Your task to perform on an android device: empty trash in google photos Image 0: 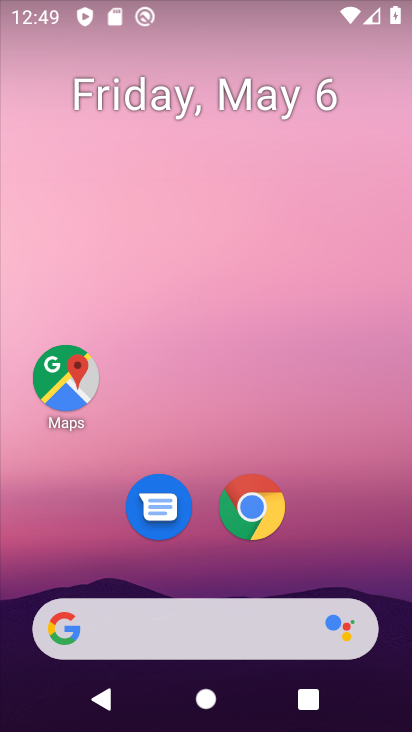
Step 0: drag from (117, 600) to (249, 173)
Your task to perform on an android device: empty trash in google photos Image 1: 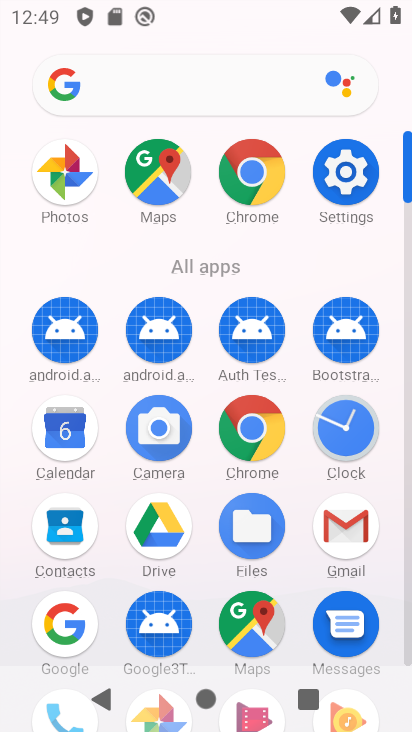
Step 1: drag from (156, 629) to (231, 412)
Your task to perform on an android device: empty trash in google photos Image 2: 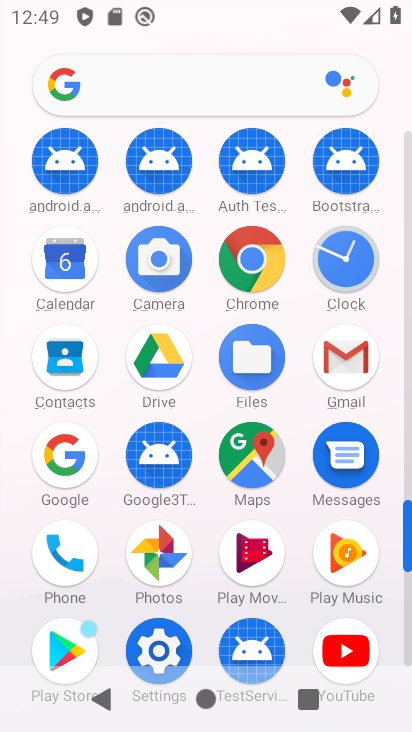
Step 2: click (161, 566)
Your task to perform on an android device: empty trash in google photos Image 3: 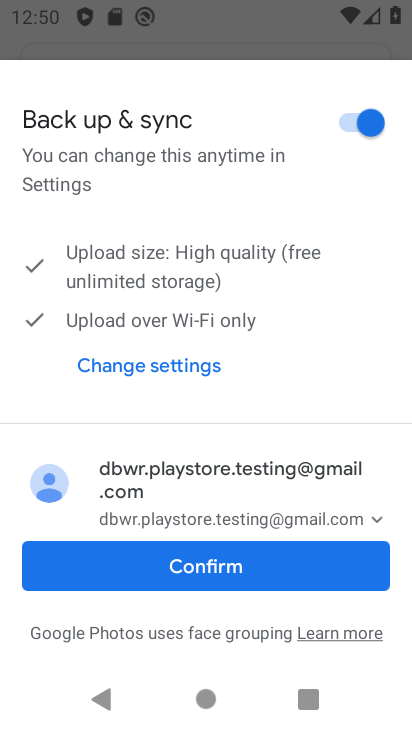
Step 3: click (190, 563)
Your task to perform on an android device: empty trash in google photos Image 4: 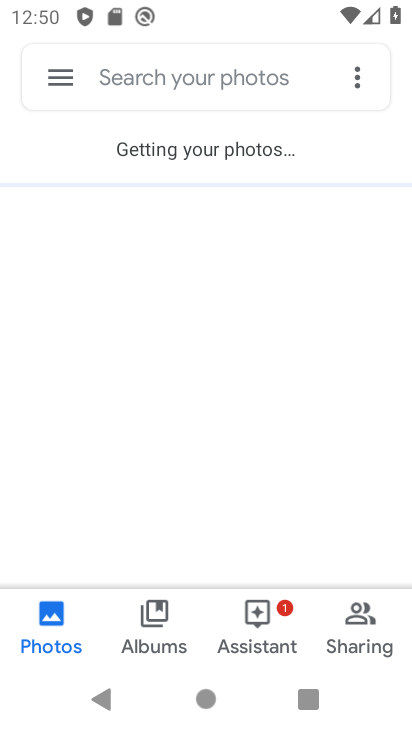
Step 4: click (58, 82)
Your task to perform on an android device: empty trash in google photos Image 5: 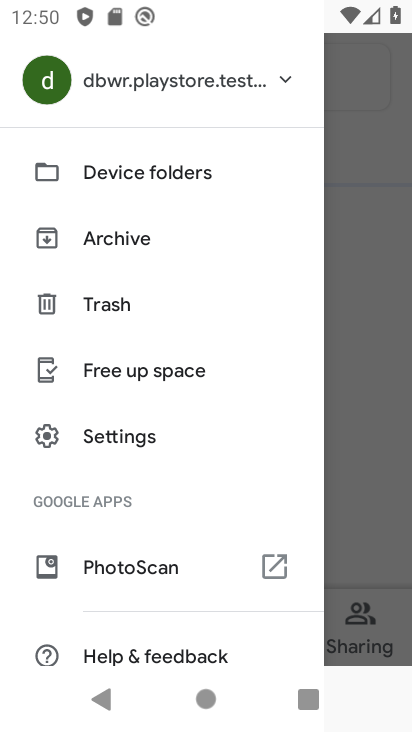
Step 5: click (144, 312)
Your task to perform on an android device: empty trash in google photos Image 6: 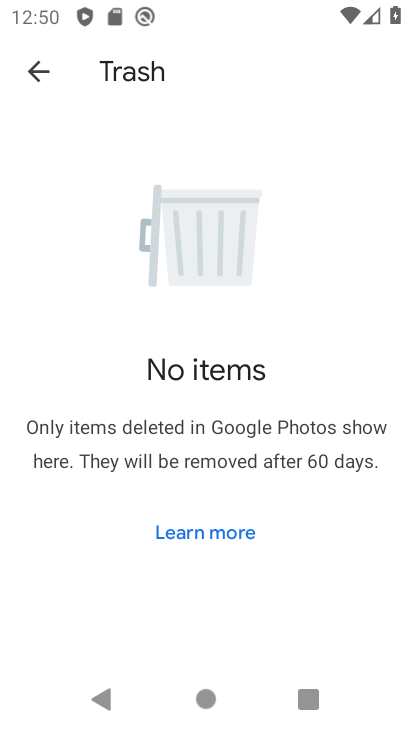
Step 6: task complete